Your task to perform on an android device: Is it going to rain this weekend? Image 0: 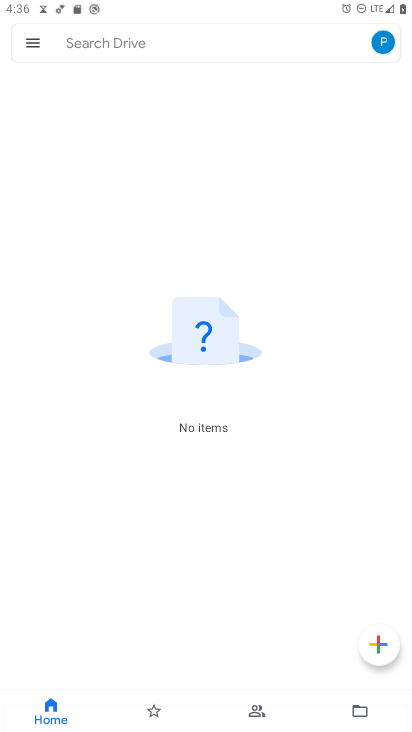
Step 0: press home button
Your task to perform on an android device: Is it going to rain this weekend? Image 1: 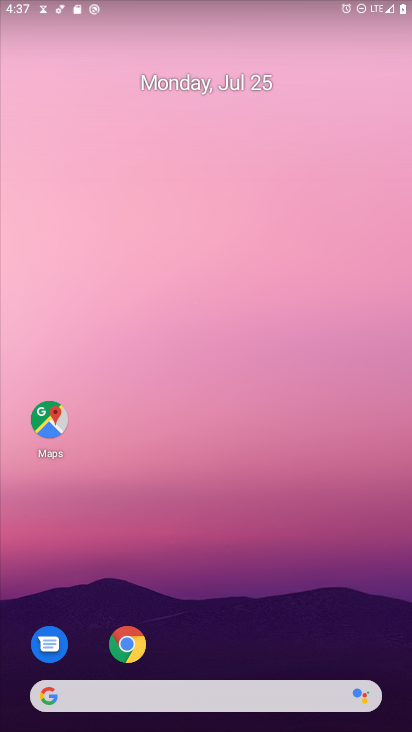
Step 1: click (47, 691)
Your task to perform on an android device: Is it going to rain this weekend? Image 2: 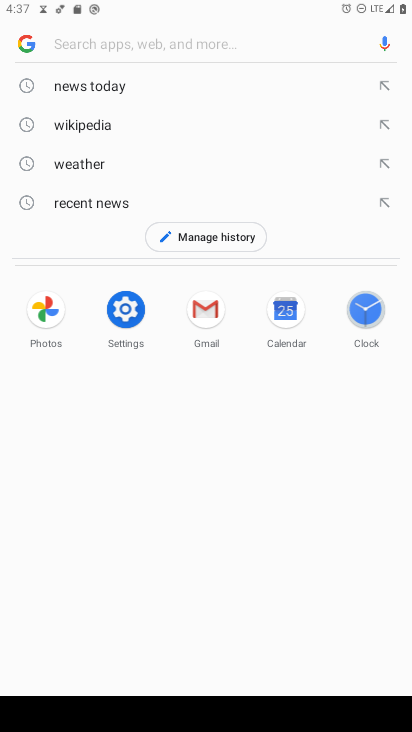
Step 2: type "Is it going to rain this weekend?"
Your task to perform on an android device: Is it going to rain this weekend? Image 3: 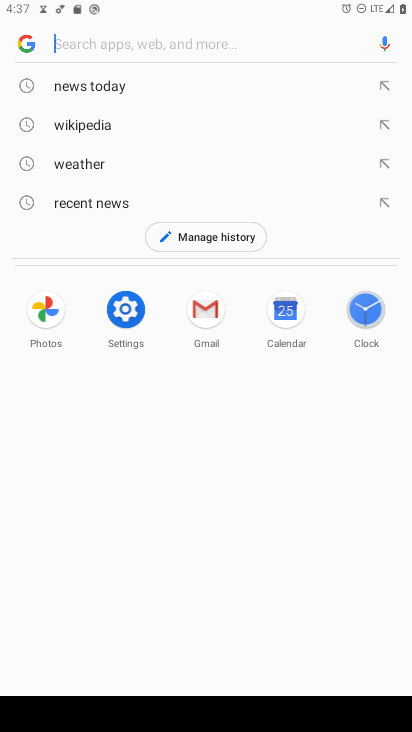
Step 3: click (61, 42)
Your task to perform on an android device: Is it going to rain this weekend? Image 4: 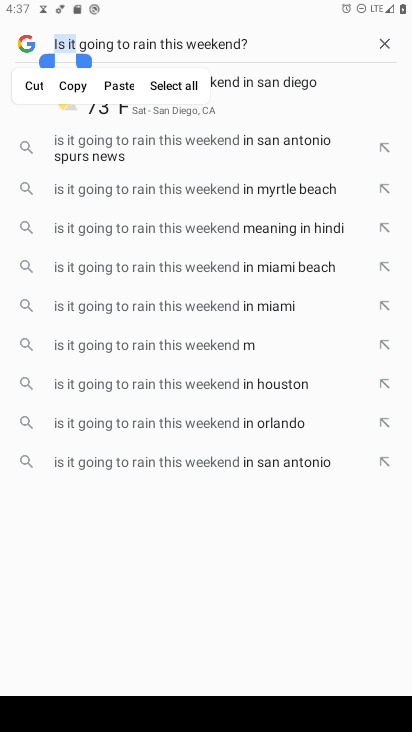
Step 4: press enter
Your task to perform on an android device: Is it going to rain this weekend? Image 5: 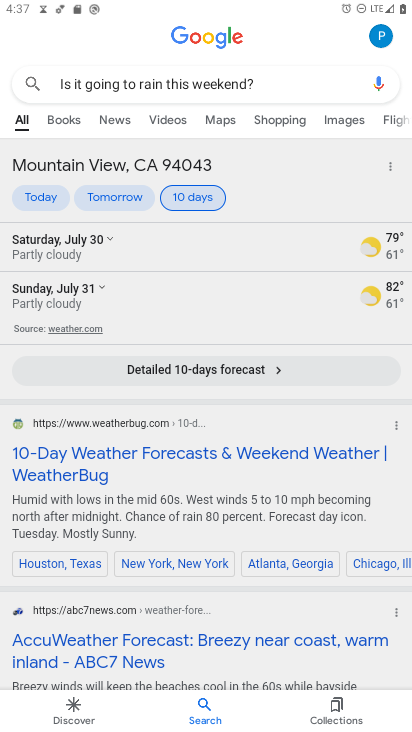
Step 5: task complete